Your task to perform on an android device: turn off picture-in-picture Image 0: 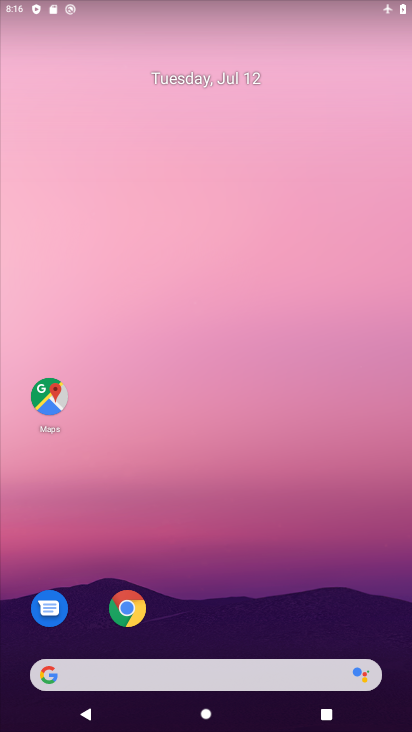
Step 0: click (311, 207)
Your task to perform on an android device: turn off picture-in-picture Image 1: 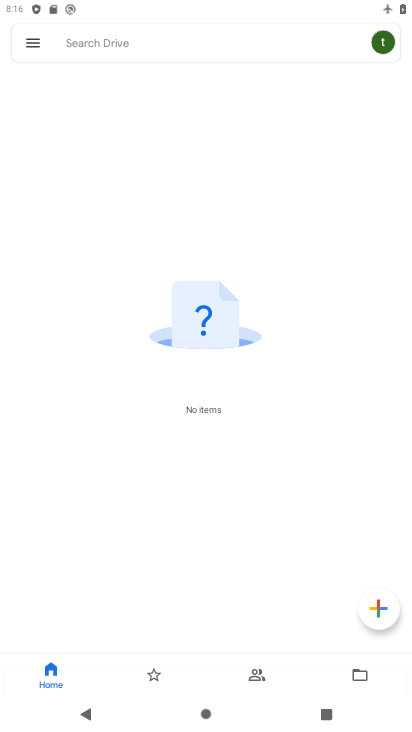
Step 1: press home button
Your task to perform on an android device: turn off picture-in-picture Image 2: 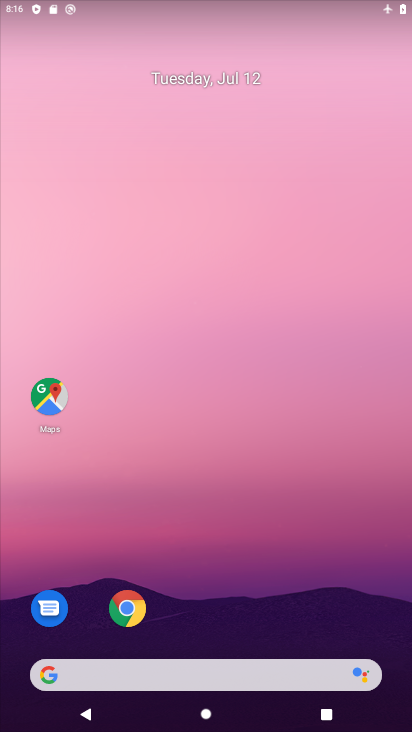
Step 2: drag from (230, 656) to (223, 35)
Your task to perform on an android device: turn off picture-in-picture Image 3: 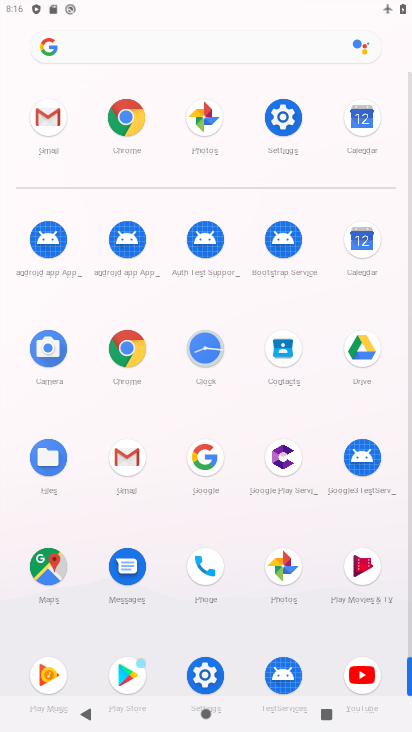
Step 3: click (296, 126)
Your task to perform on an android device: turn off picture-in-picture Image 4: 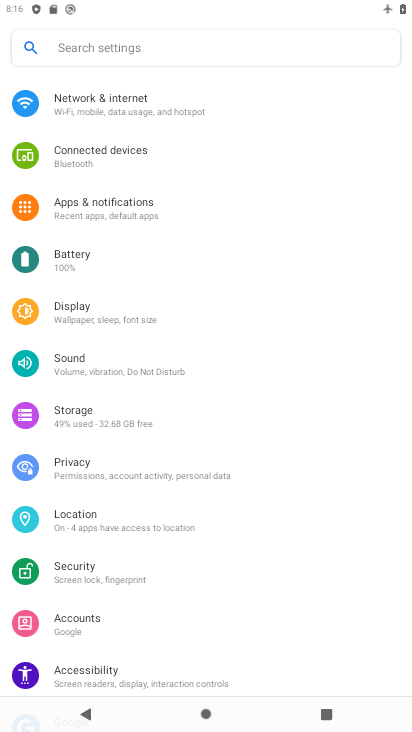
Step 4: click (110, 208)
Your task to perform on an android device: turn off picture-in-picture Image 5: 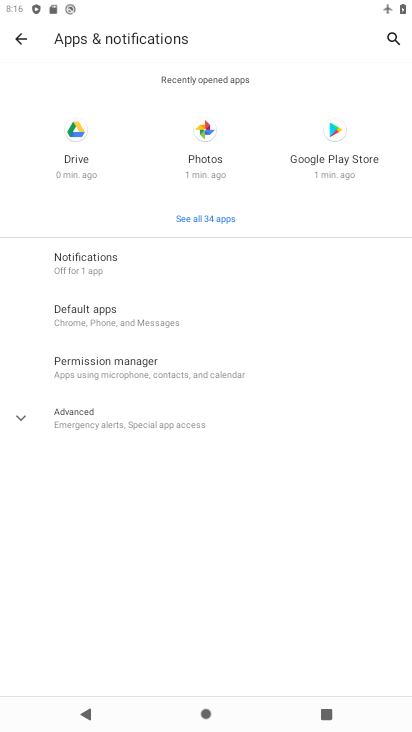
Step 5: click (135, 415)
Your task to perform on an android device: turn off picture-in-picture Image 6: 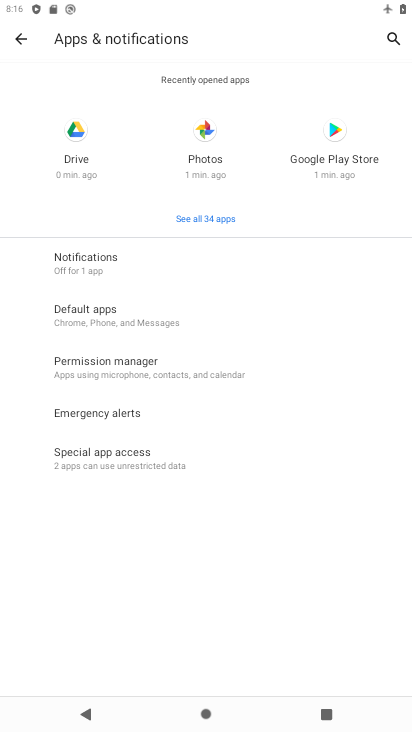
Step 6: click (113, 268)
Your task to perform on an android device: turn off picture-in-picture Image 7: 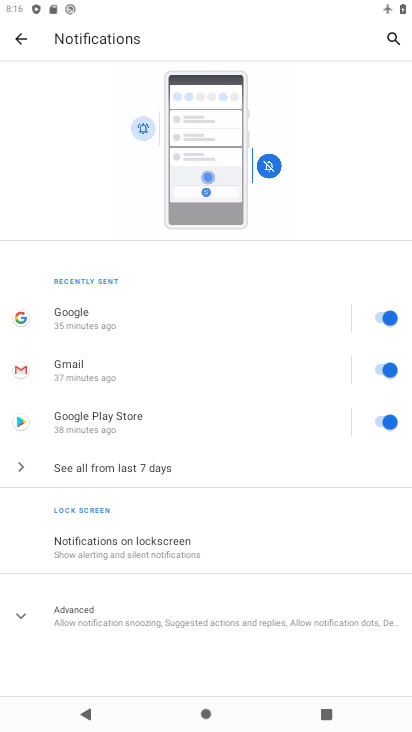
Step 7: click (155, 611)
Your task to perform on an android device: turn off picture-in-picture Image 8: 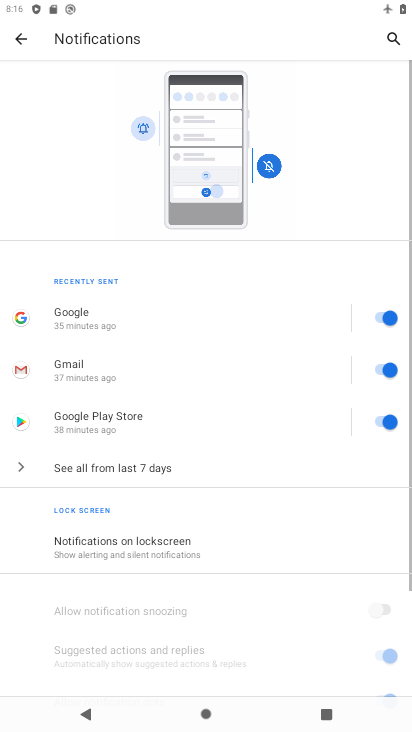
Step 8: task complete